Your task to perform on an android device: turn off airplane mode Image 0: 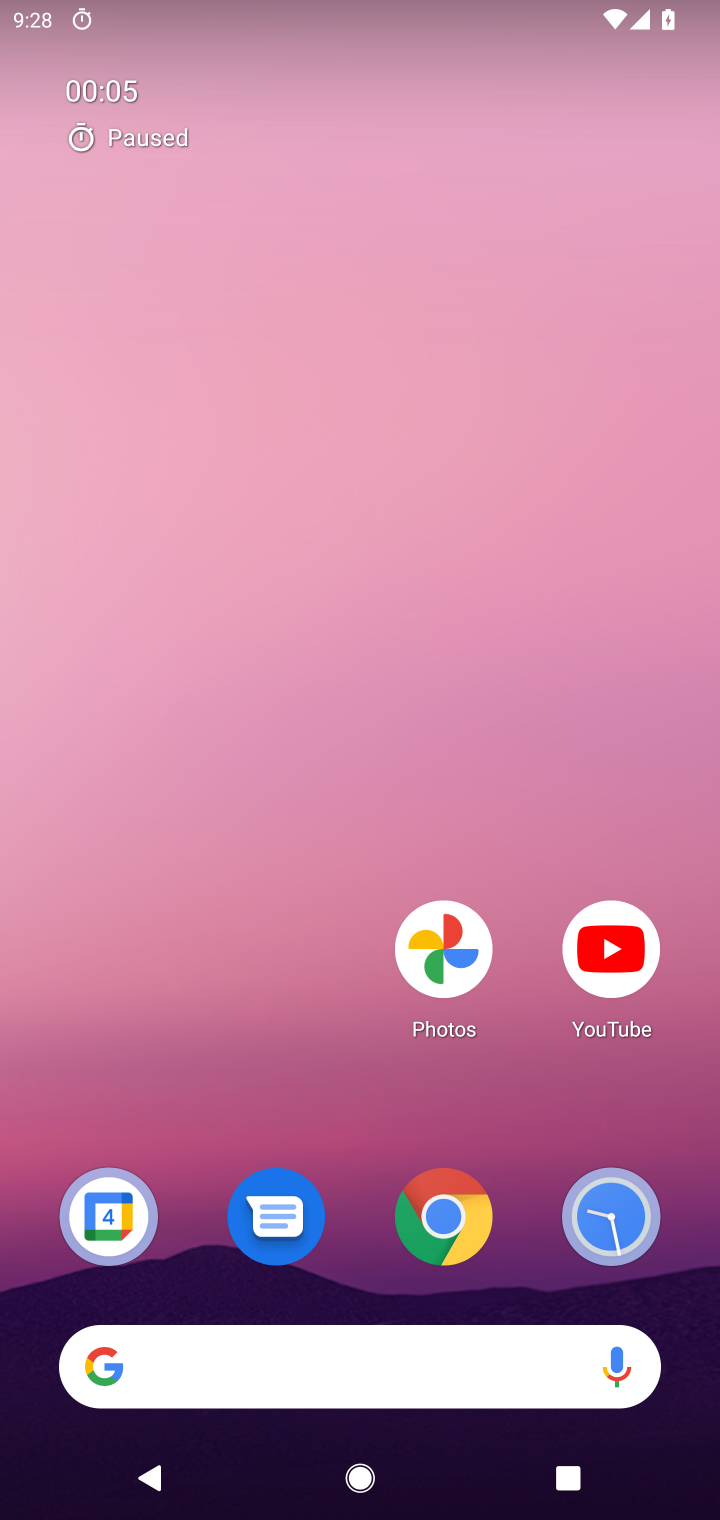
Step 0: drag from (366, 1013) to (303, 220)
Your task to perform on an android device: turn off airplane mode Image 1: 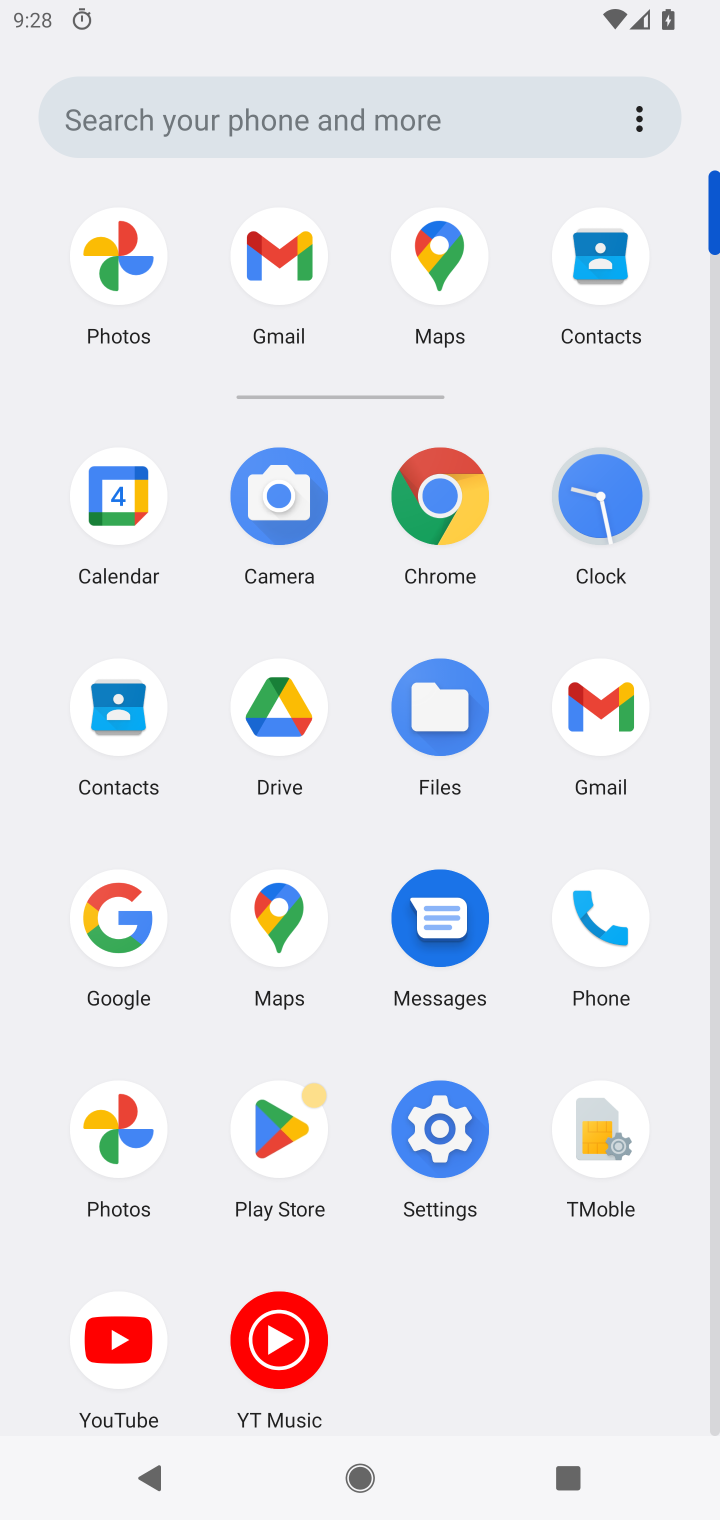
Step 1: click (437, 1125)
Your task to perform on an android device: turn off airplane mode Image 2: 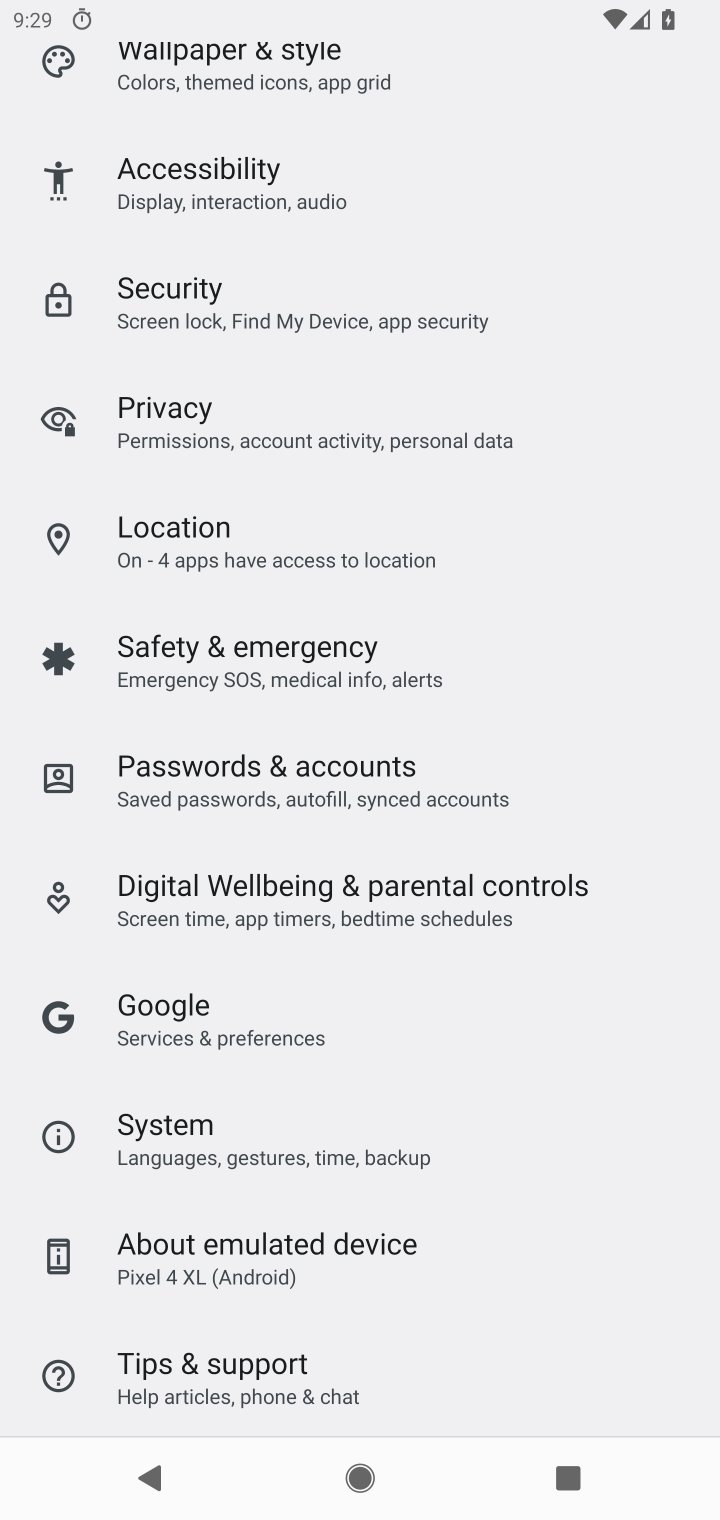
Step 2: drag from (326, 283) to (303, 1109)
Your task to perform on an android device: turn off airplane mode Image 3: 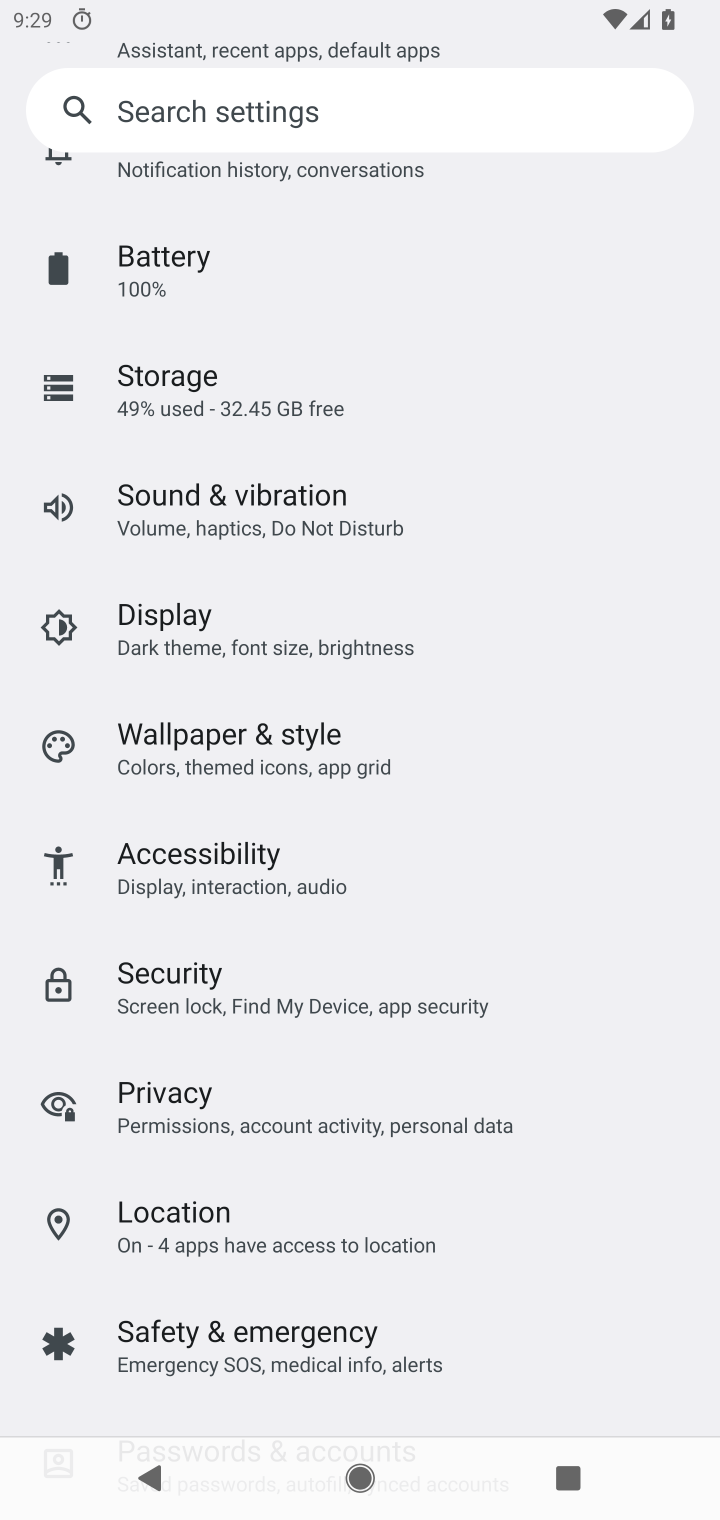
Step 3: drag from (248, 207) to (274, 1138)
Your task to perform on an android device: turn off airplane mode Image 4: 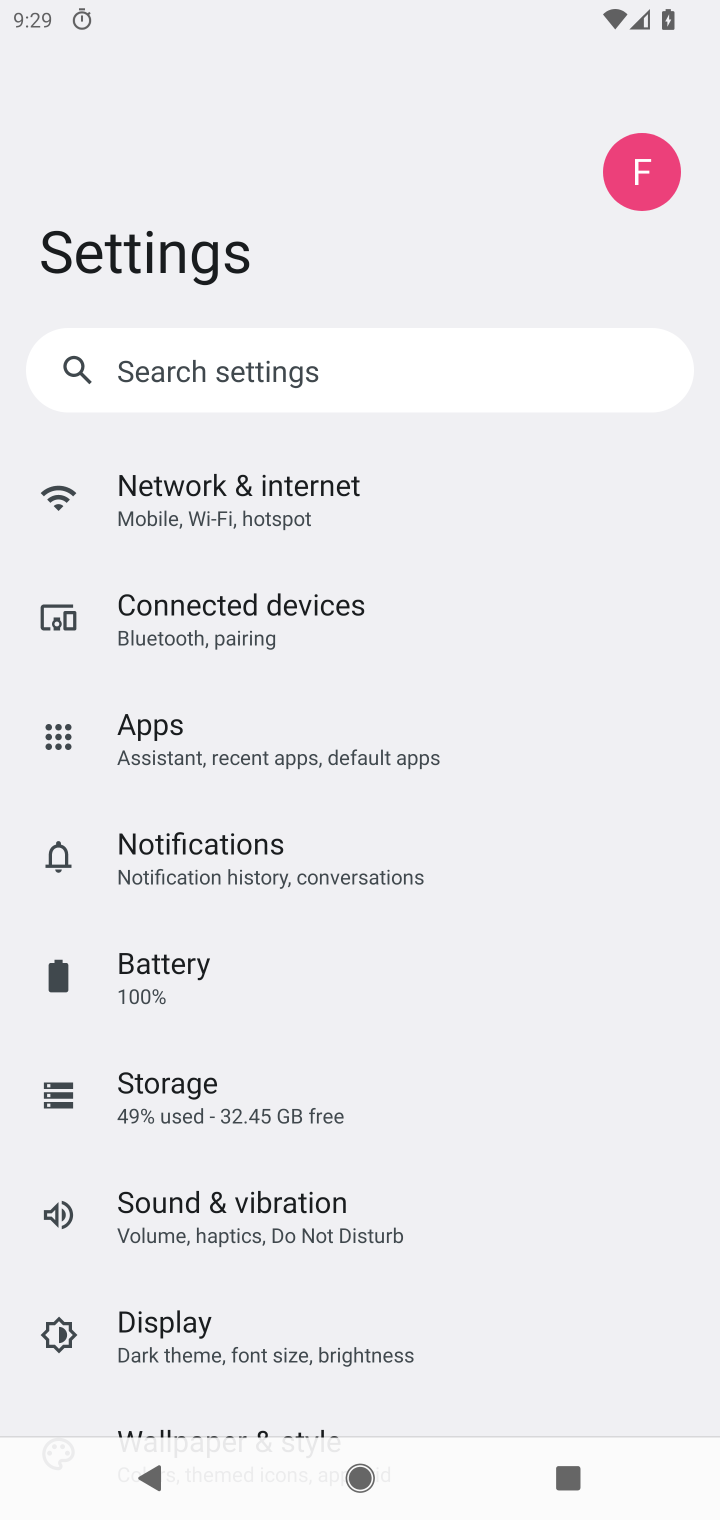
Step 4: click (214, 506)
Your task to perform on an android device: turn off airplane mode Image 5: 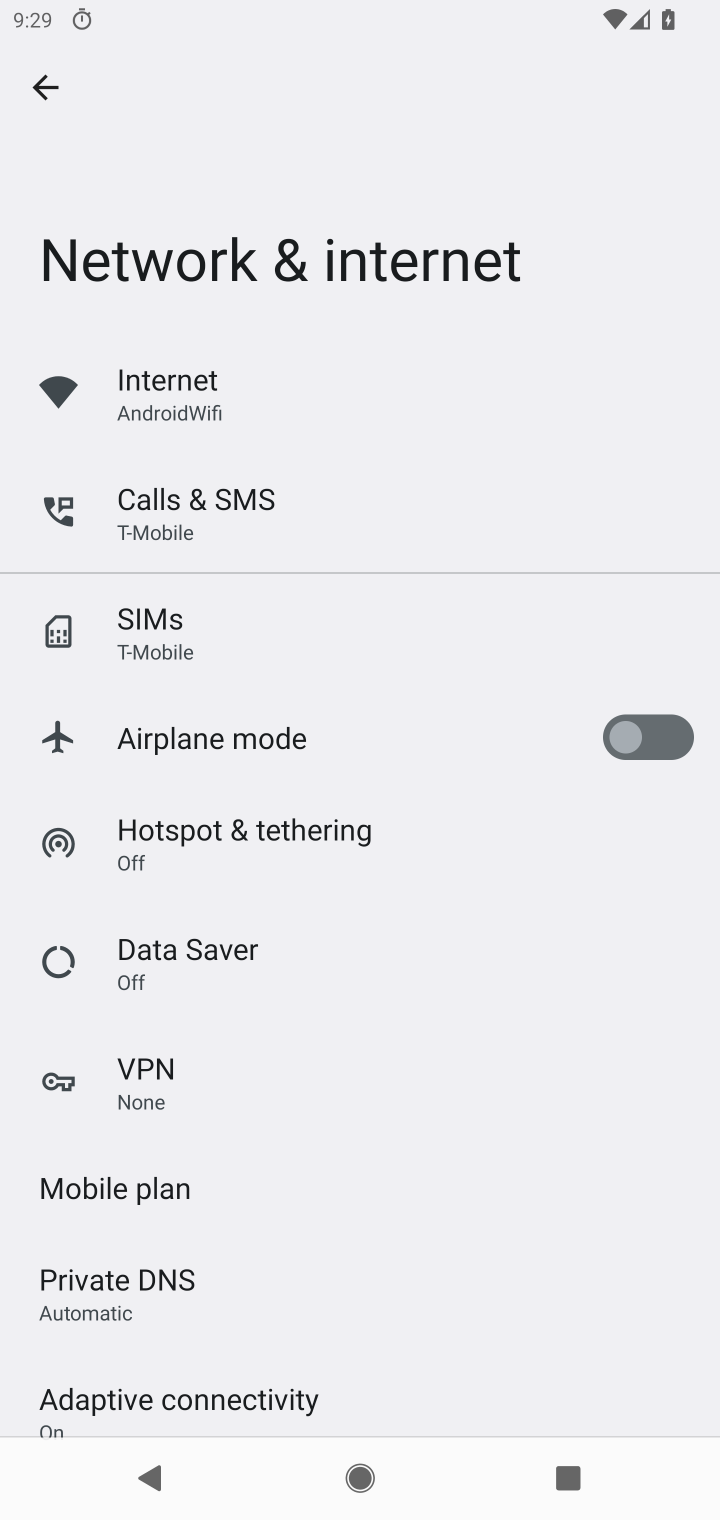
Step 5: task complete